Your task to perform on an android device: turn on the 12-hour format for clock Image 0: 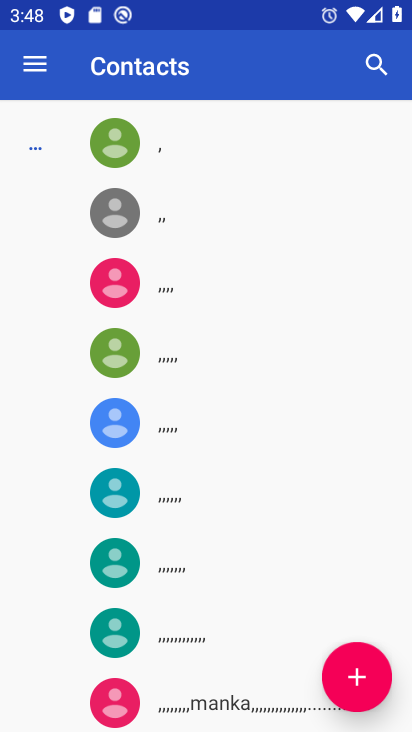
Step 0: press back button
Your task to perform on an android device: turn on the 12-hour format for clock Image 1: 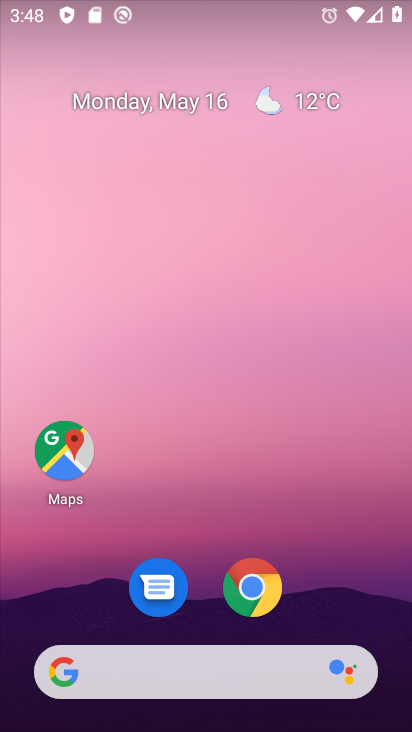
Step 1: drag from (387, 676) to (354, 318)
Your task to perform on an android device: turn on the 12-hour format for clock Image 2: 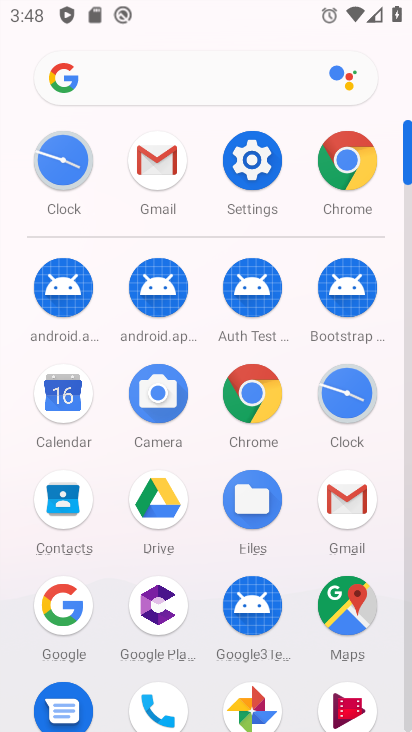
Step 2: click (351, 372)
Your task to perform on an android device: turn on the 12-hour format for clock Image 3: 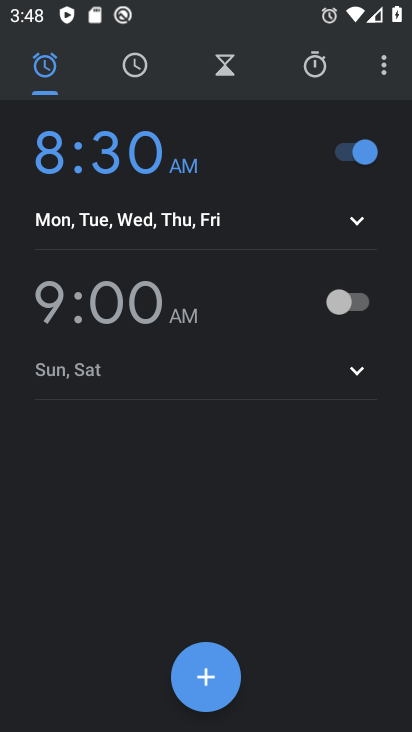
Step 3: click (385, 67)
Your task to perform on an android device: turn on the 12-hour format for clock Image 4: 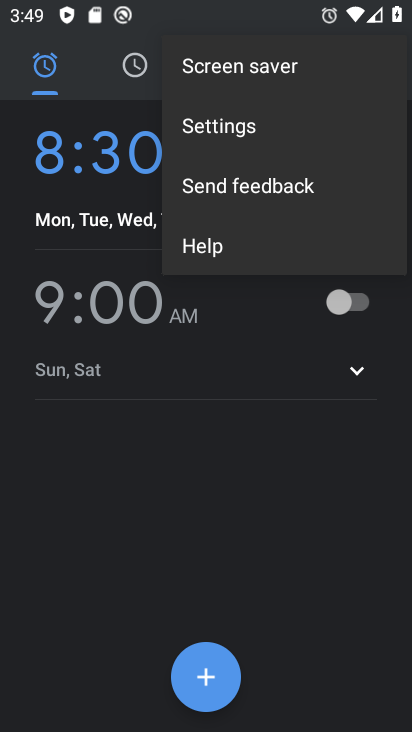
Step 4: click (213, 131)
Your task to perform on an android device: turn on the 12-hour format for clock Image 5: 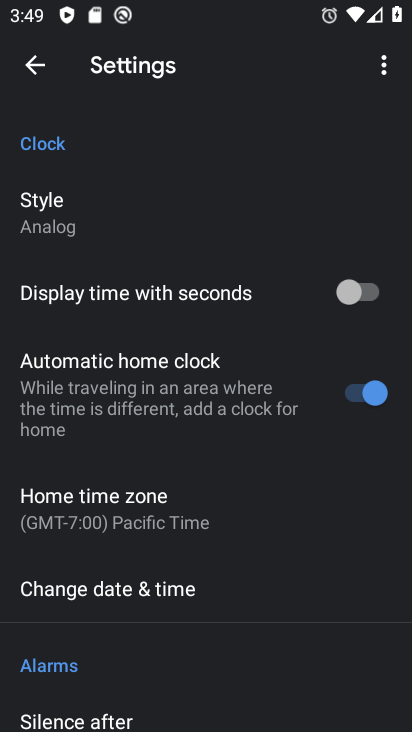
Step 5: click (130, 588)
Your task to perform on an android device: turn on the 12-hour format for clock Image 6: 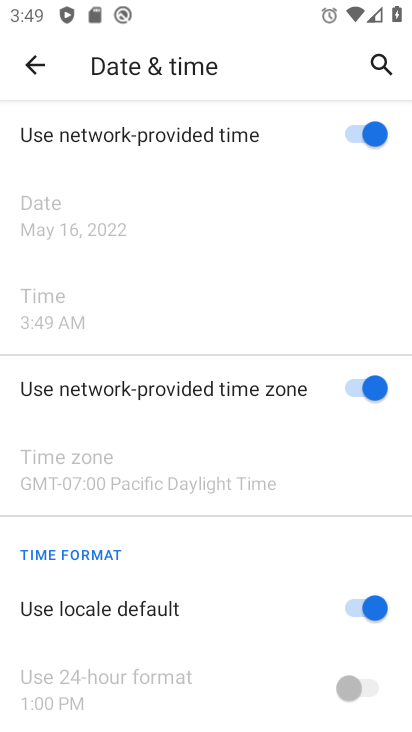
Step 6: task complete